Your task to perform on an android device: See recent photos Image 0: 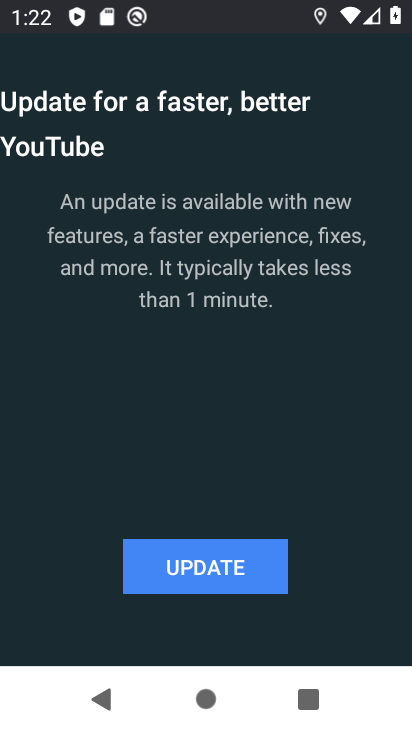
Step 0: press home button
Your task to perform on an android device: See recent photos Image 1: 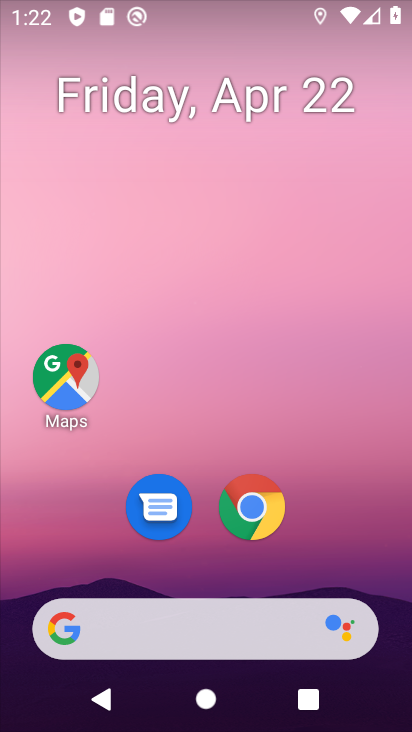
Step 1: drag from (188, 627) to (385, 0)
Your task to perform on an android device: See recent photos Image 2: 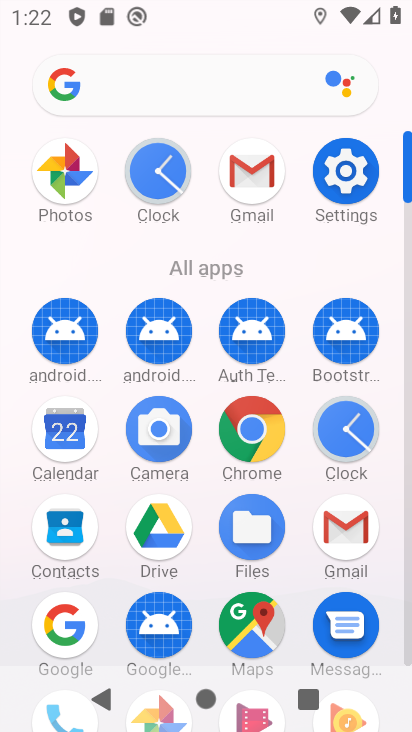
Step 2: click (68, 173)
Your task to perform on an android device: See recent photos Image 3: 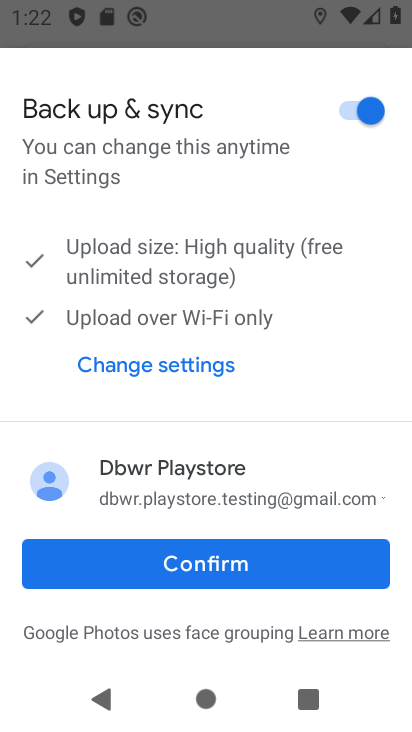
Step 3: click (204, 568)
Your task to perform on an android device: See recent photos Image 4: 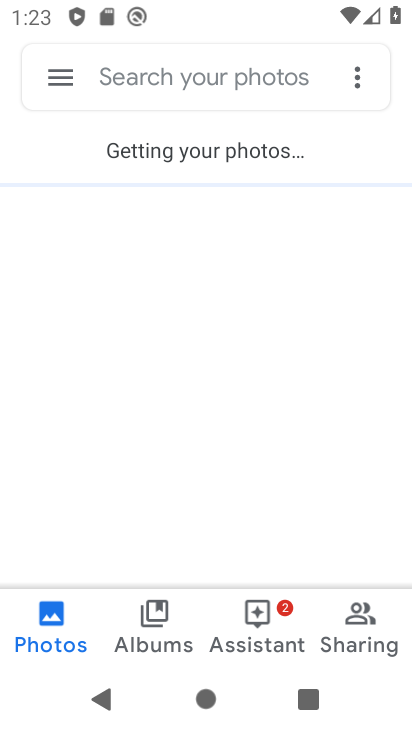
Step 4: click (162, 628)
Your task to perform on an android device: See recent photos Image 5: 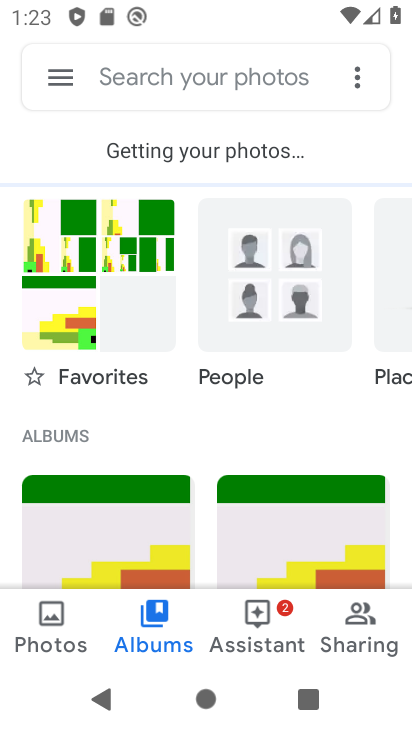
Step 5: task complete